Your task to perform on an android device: turn notification dots off Image 0: 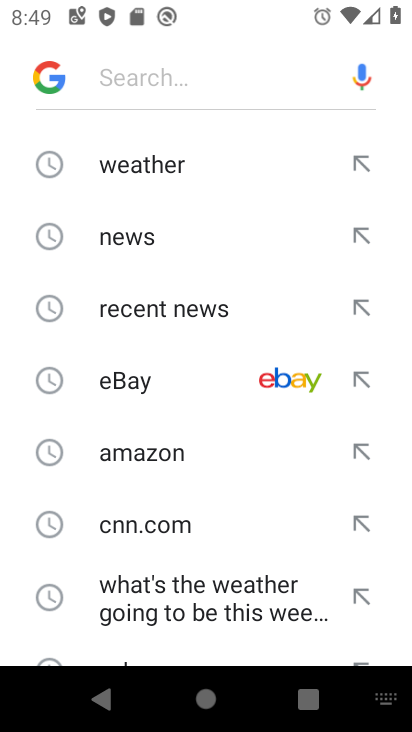
Step 0: press home button
Your task to perform on an android device: turn notification dots off Image 1: 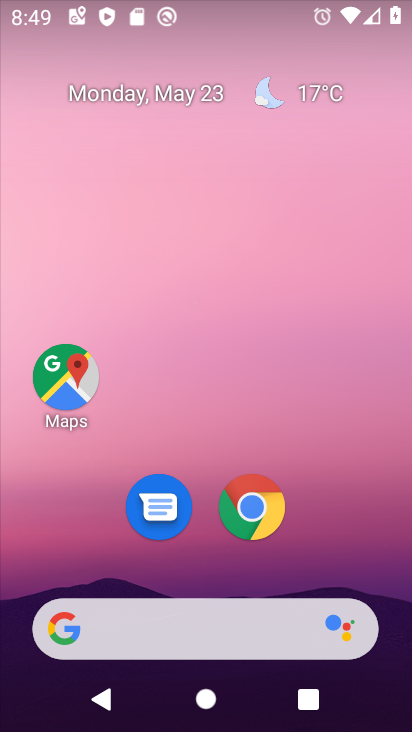
Step 1: drag from (337, 580) to (291, 1)
Your task to perform on an android device: turn notification dots off Image 2: 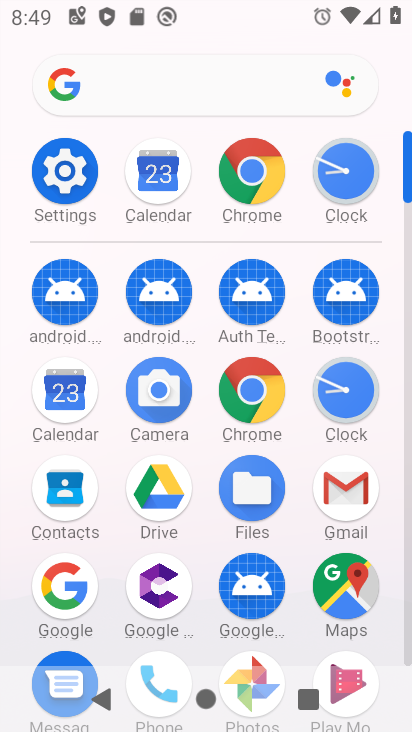
Step 2: click (63, 180)
Your task to perform on an android device: turn notification dots off Image 3: 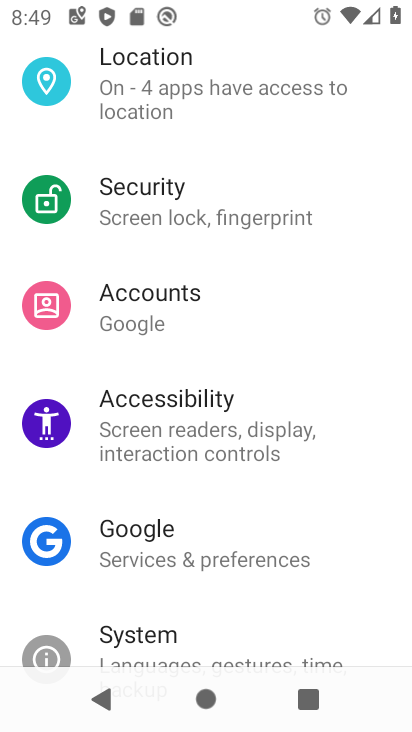
Step 3: drag from (358, 191) to (356, 524)
Your task to perform on an android device: turn notification dots off Image 4: 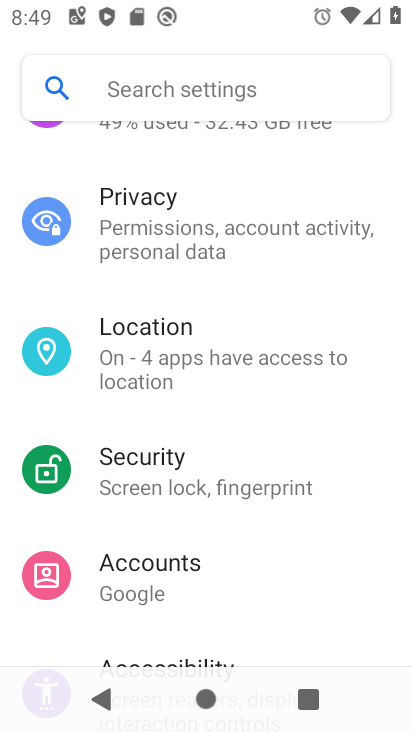
Step 4: drag from (326, 305) to (315, 519)
Your task to perform on an android device: turn notification dots off Image 5: 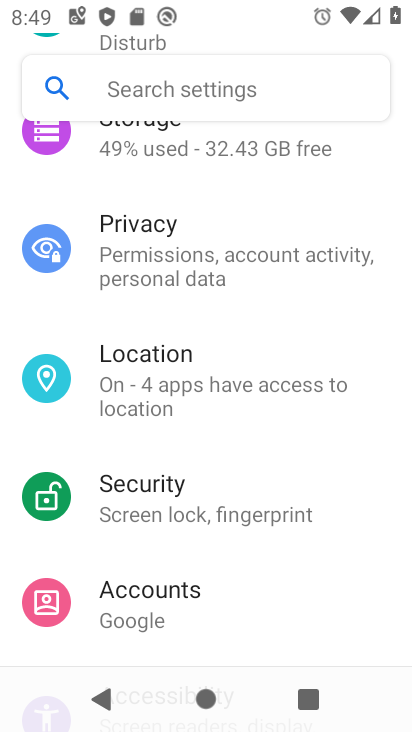
Step 5: drag from (321, 205) to (330, 556)
Your task to perform on an android device: turn notification dots off Image 6: 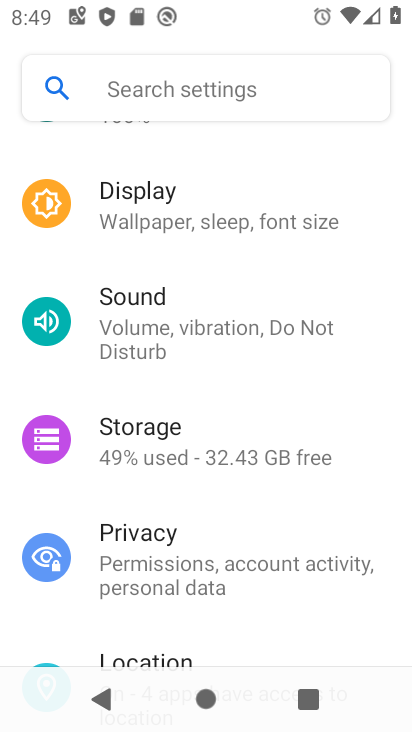
Step 6: drag from (308, 449) to (303, 572)
Your task to perform on an android device: turn notification dots off Image 7: 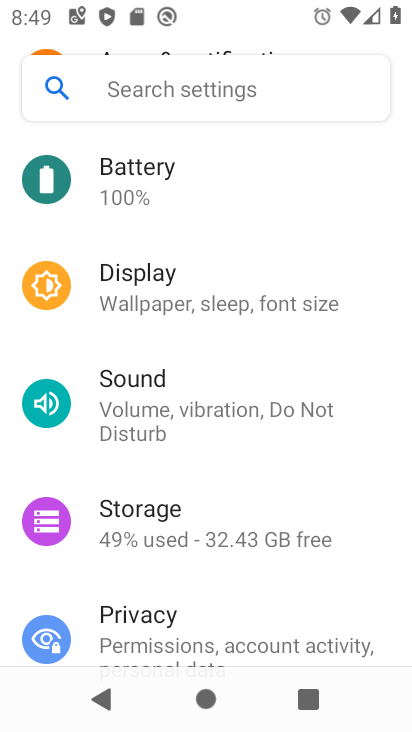
Step 7: drag from (320, 244) to (306, 584)
Your task to perform on an android device: turn notification dots off Image 8: 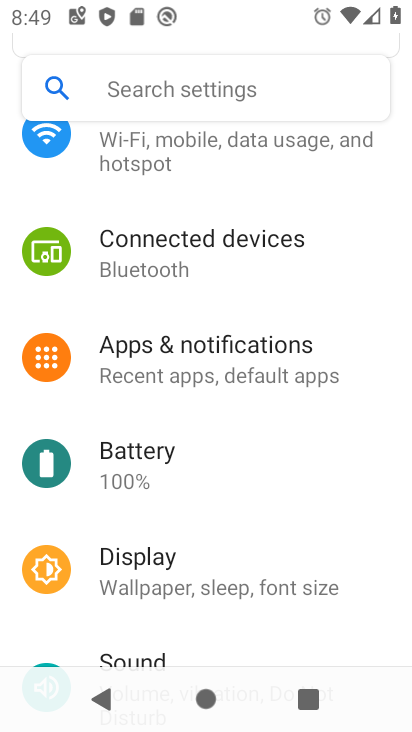
Step 8: click (208, 362)
Your task to perform on an android device: turn notification dots off Image 9: 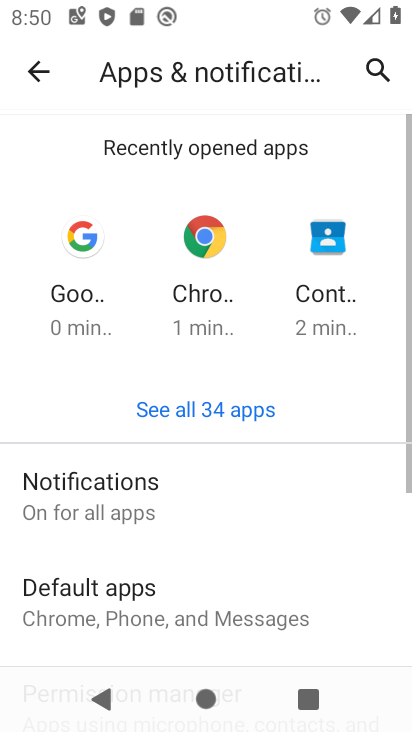
Step 9: click (95, 492)
Your task to perform on an android device: turn notification dots off Image 10: 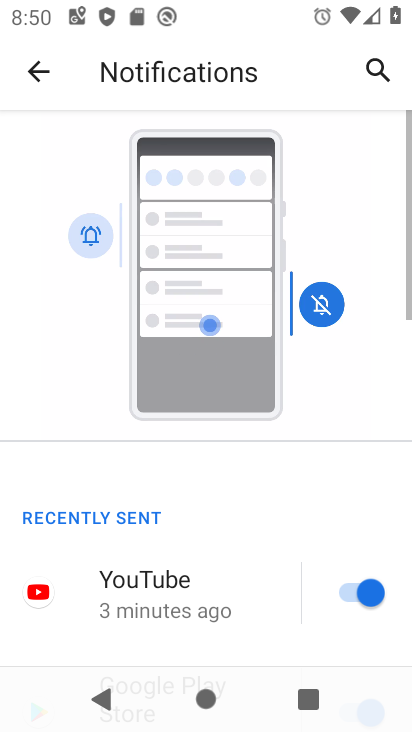
Step 10: drag from (197, 590) to (201, 116)
Your task to perform on an android device: turn notification dots off Image 11: 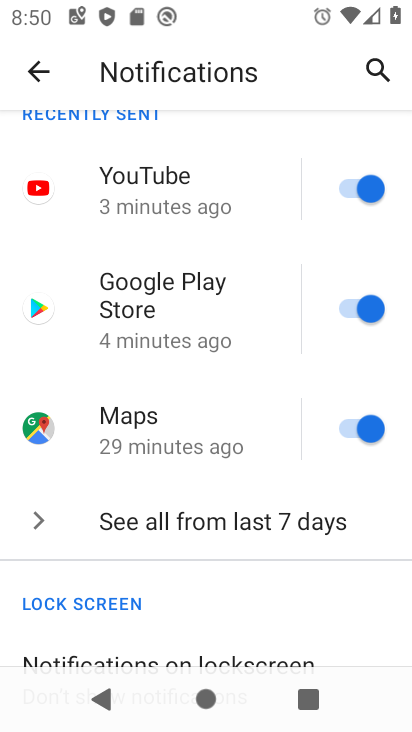
Step 11: drag from (163, 492) to (163, 93)
Your task to perform on an android device: turn notification dots off Image 12: 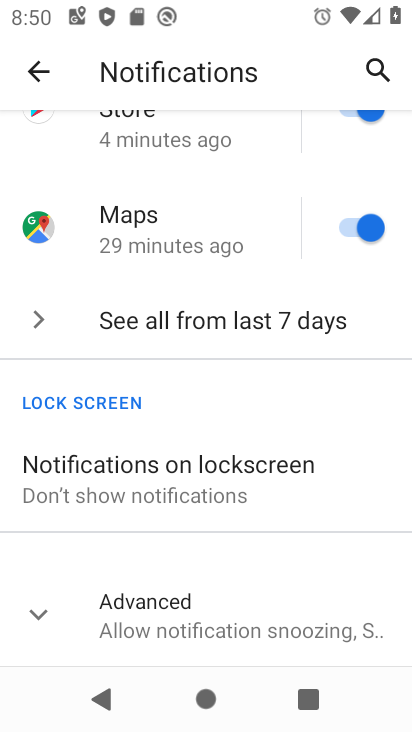
Step 12: click (41, 621)
Your task to perform on an android device: turn notification dots off Image 13: 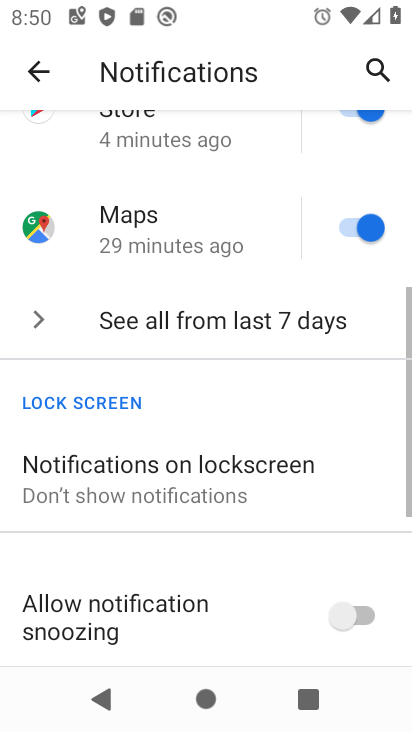
Step 13: drag from (187, 618) to (160, 145)
Your task to perform on an android device: turn notification dots off Image 14: 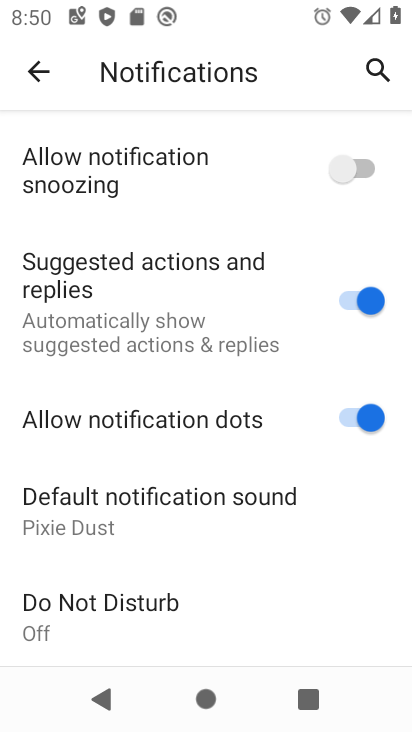
Step 14: click (361, 417)
Your task to perform on an android device: turn notification dots off Image 15: 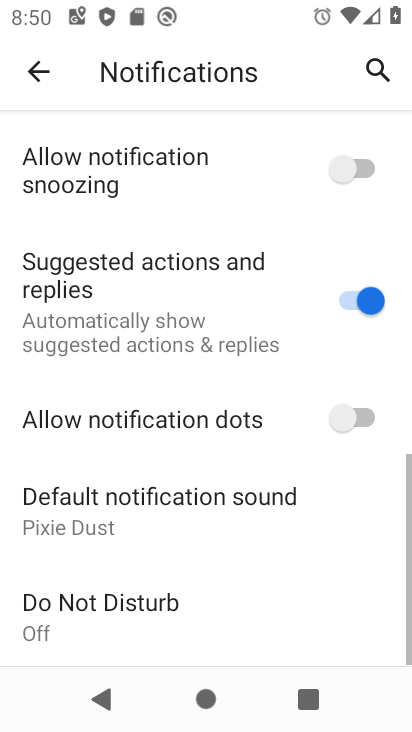
Step 15: task complete